Your task to perform on an android device: open chrome and create a bookmark for the current page Image 0: 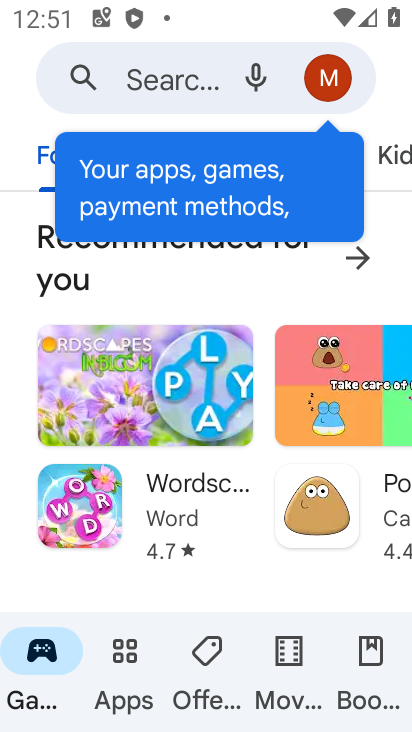
Step 0: press home button
Your task to perform on an android device: open chrome and create a bookmark for the current page Image 1: 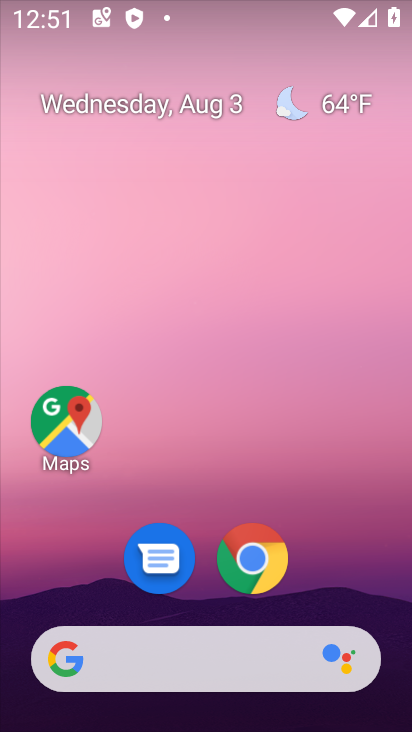
Step 1: click (253, 565)
Your task to perform on an android device: open chrome and create a bookmark for the current page Image 2: 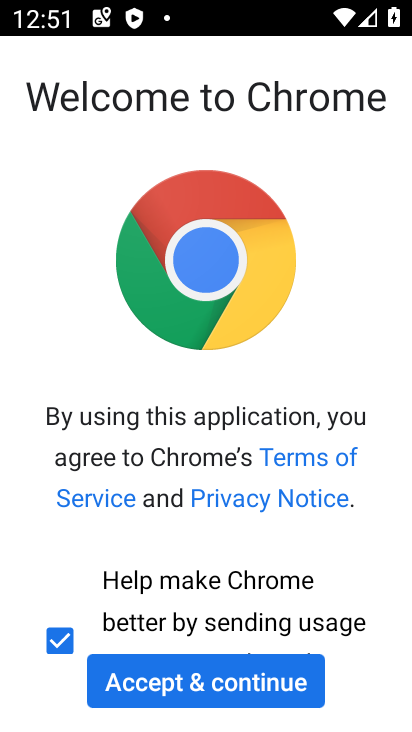
Step 2: click (266, 565)
Your task to perform on an android device: open chrome and create a bookmark for the current page Image 3: 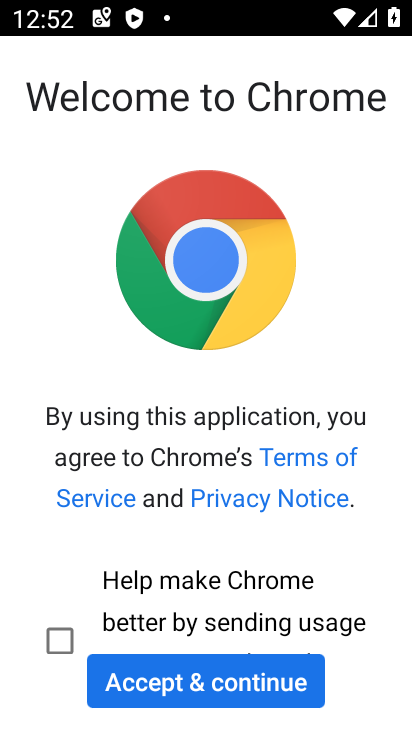
Step 3: click (259, 677)
Your task to perform on an android device: open chrome and create a bookmark for the current page Image 4: 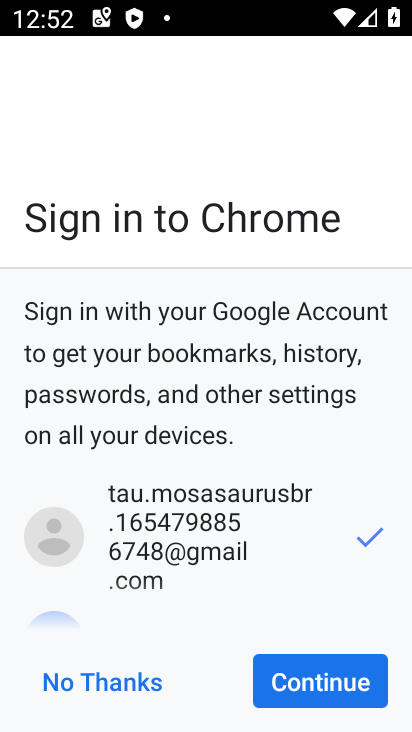
Step 4: click (301, 679)
Your task to perform on an android device: open chrome and create a bookmark for the current page Image 5: 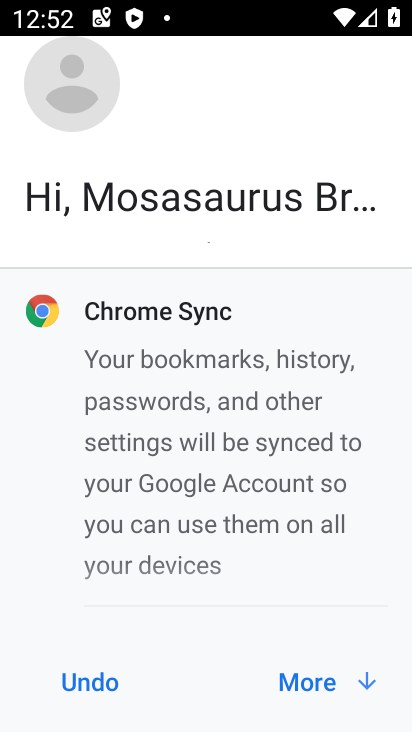
Step 5: click (301, 679)
Your task to perform on an android device: open chrome and create a bookmark for the current page Image 6: 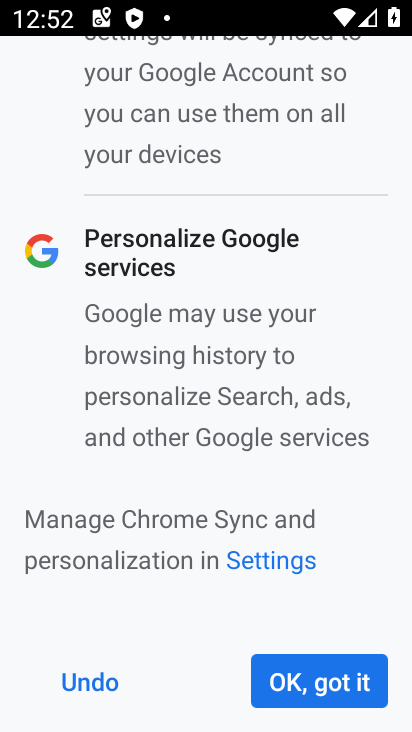
Step 6: click (301, 679)
Your task to perform on an android device: open chrome and create a bookmark for the current page Image 7: 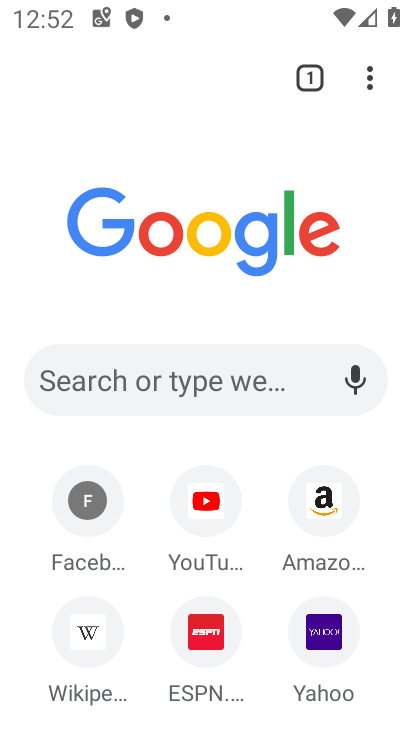
Step 7: click (377, 73)
Your task to perform on an android device: open chrome and create a bookmark for the current page Image 8: 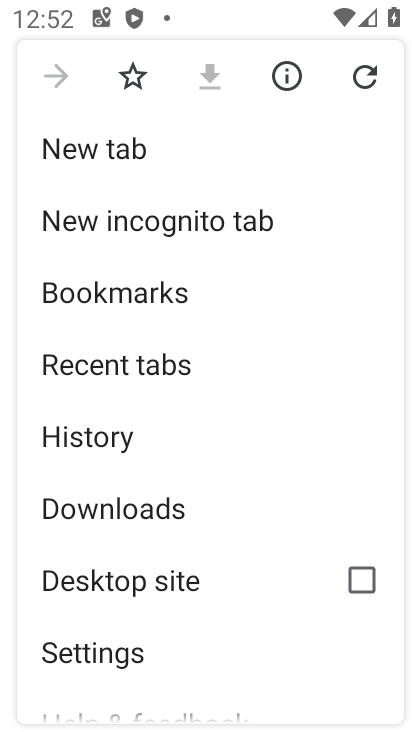
Step 8: click (134, 75)
Your task to perform on an android device: open chrome and create a bookmark for the current page Image 9: 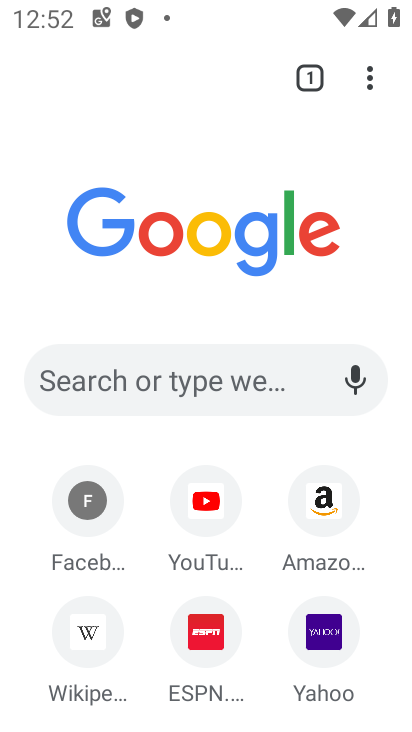
Step 9: task complete